Your task to perform on an android device: check android version Image 0: 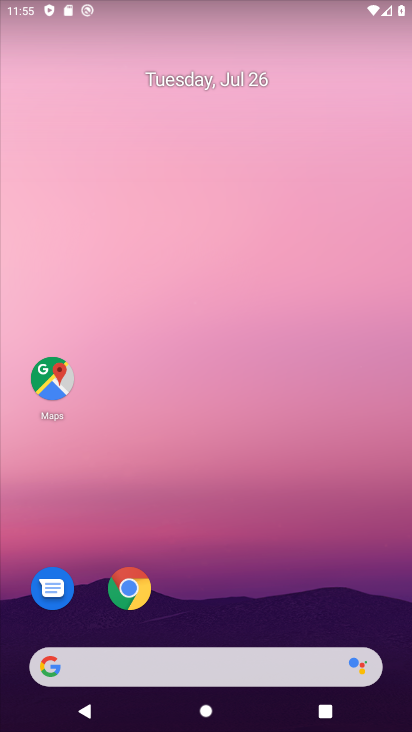
Step 0: drag from (48, 698) to (193, 144)
Your task to perform on an android device: check android version Image 1: 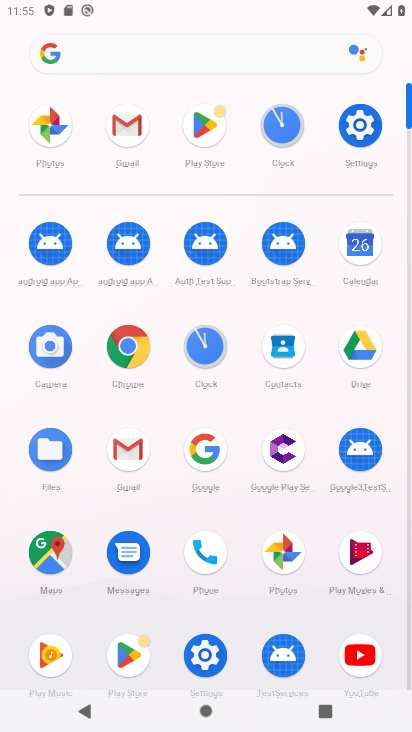
Step 1: click (200, 650)
Your task to perform on an android device: check android version Image 2: 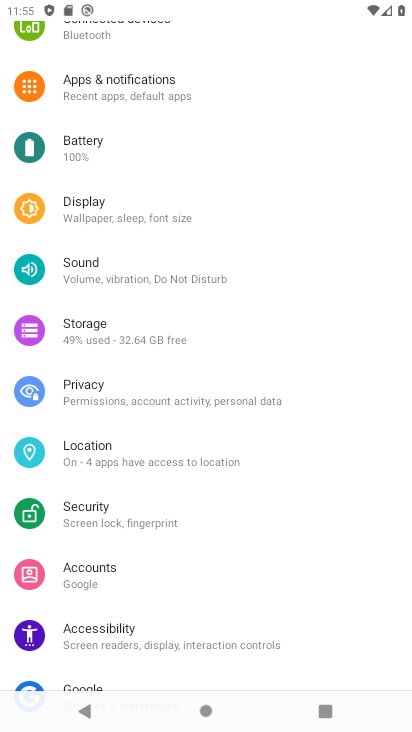
Step 2: drag from (270, 625) to (357, 108)
Your task to perform on an android device: check android version Image 3: 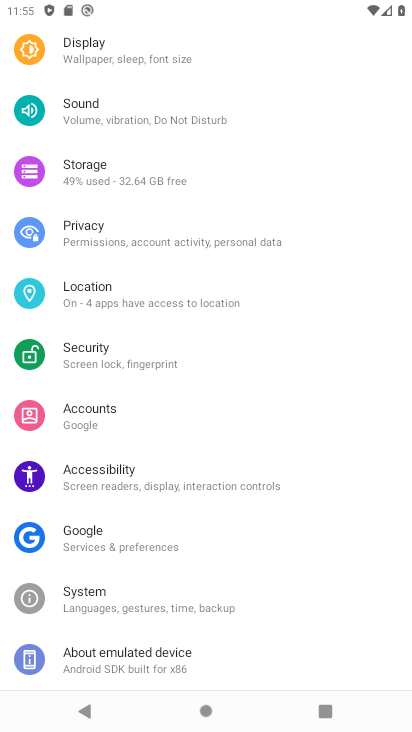
Step 3: click (149, 650)
Your task to perform on an android device: check android version Image 4: 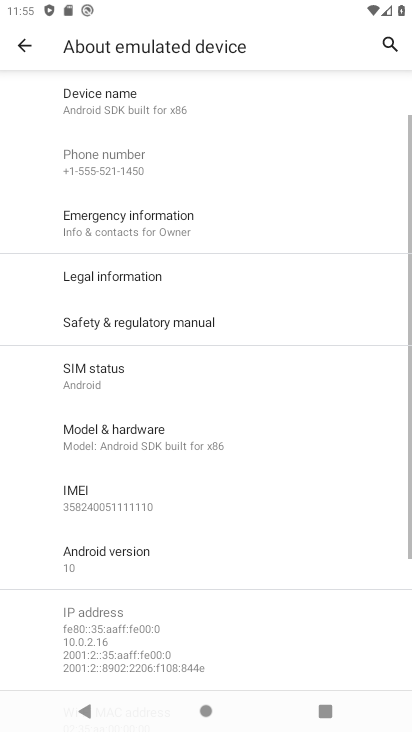
Step 4: click (111, 542)
Your task to perform on an android device: check android version Image 5: 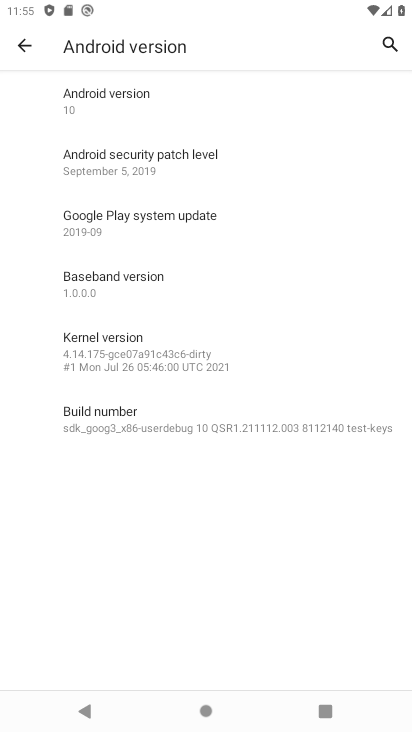
Step 5: task complete